Your task to perform on an android device: Open my contact list Image 0: 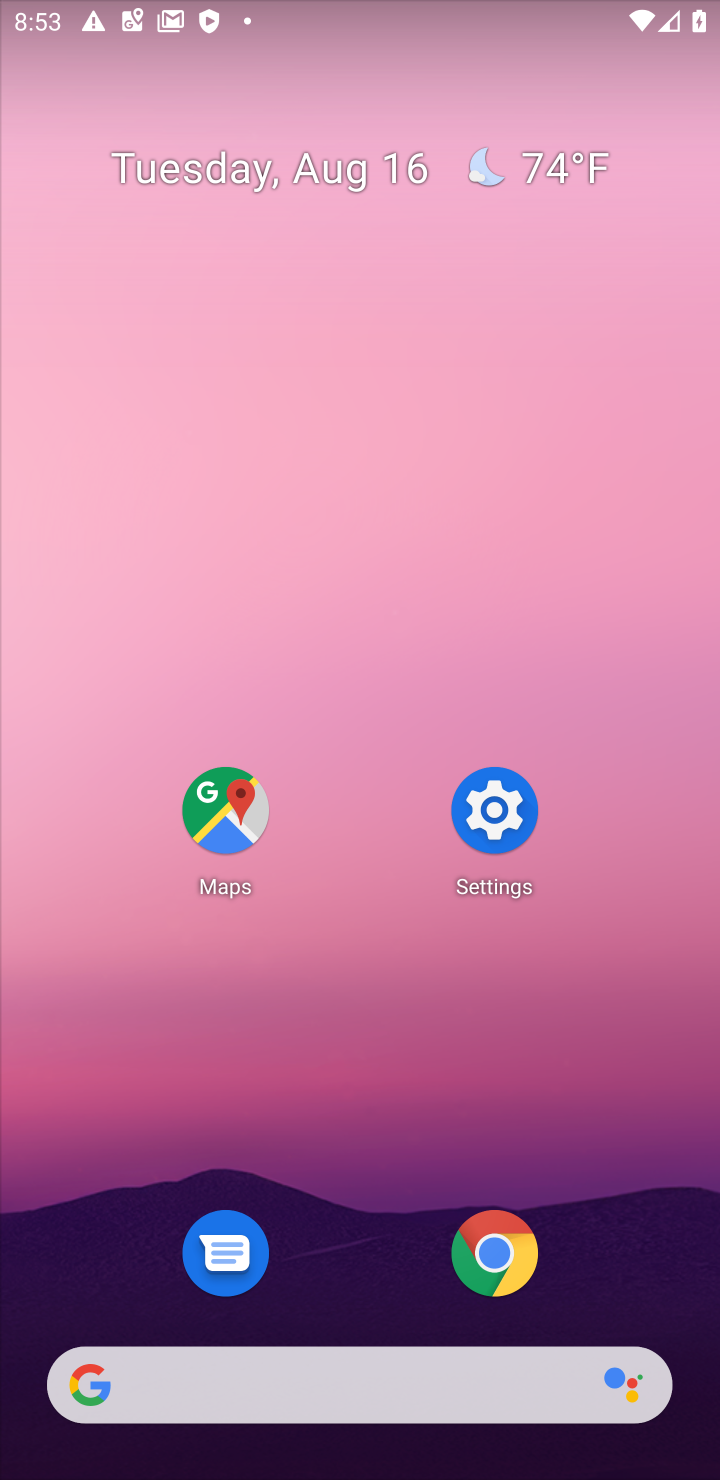
Step 0: drag from (325, 1382) to (488, 115)
Your task to perform on an android device: Open my contact list Image 1: 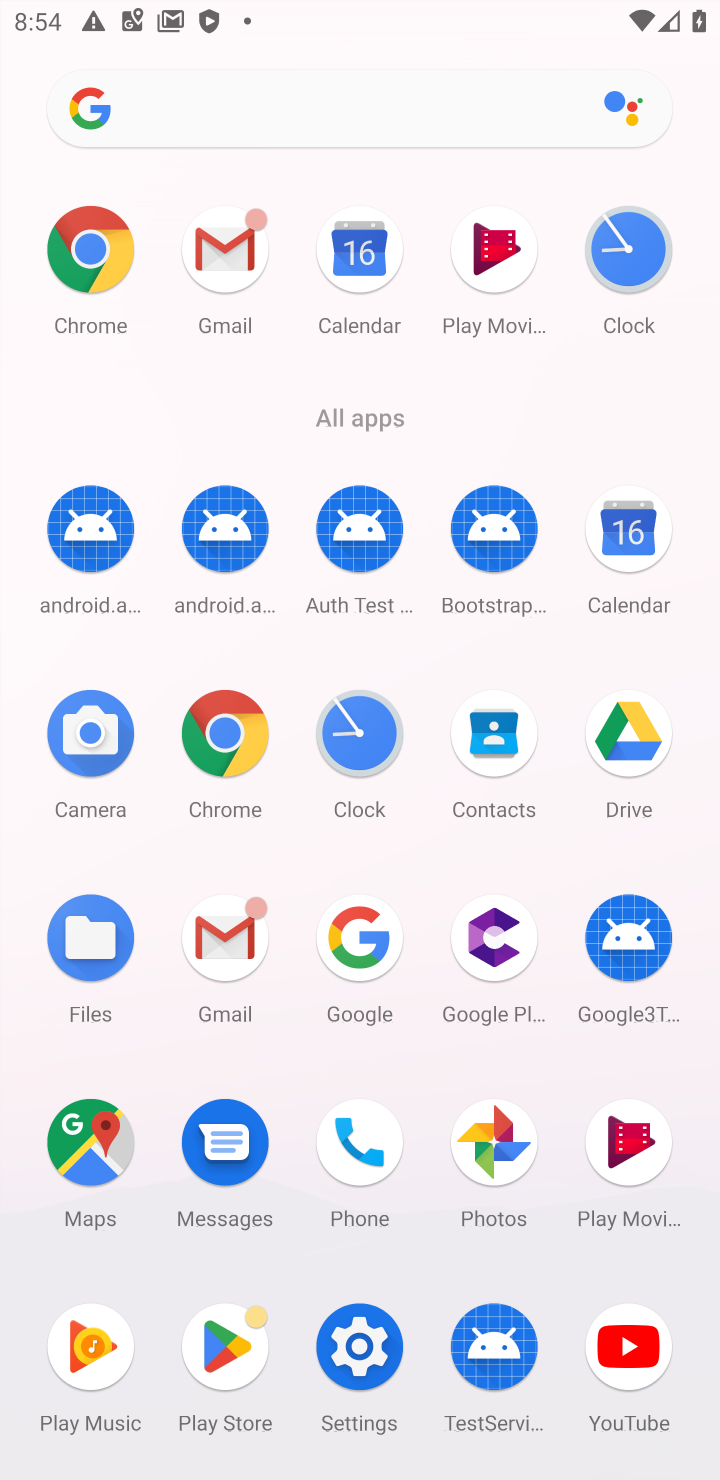
Step 1: click (496, 737)
Your task to perform on an android device: Open my contact list Image 2: 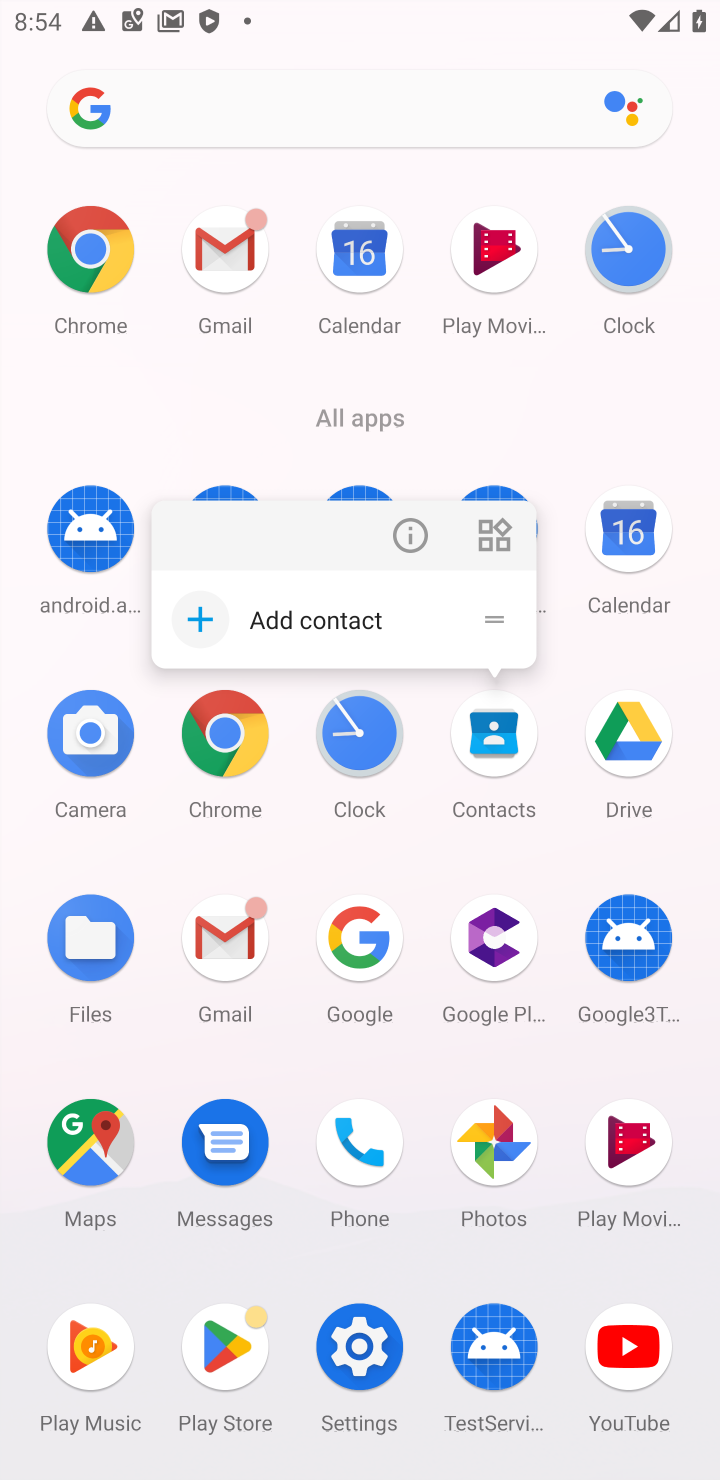
Step 2: click (496, 737)
Your task to perform on an android device: Open my contact list Image 3: 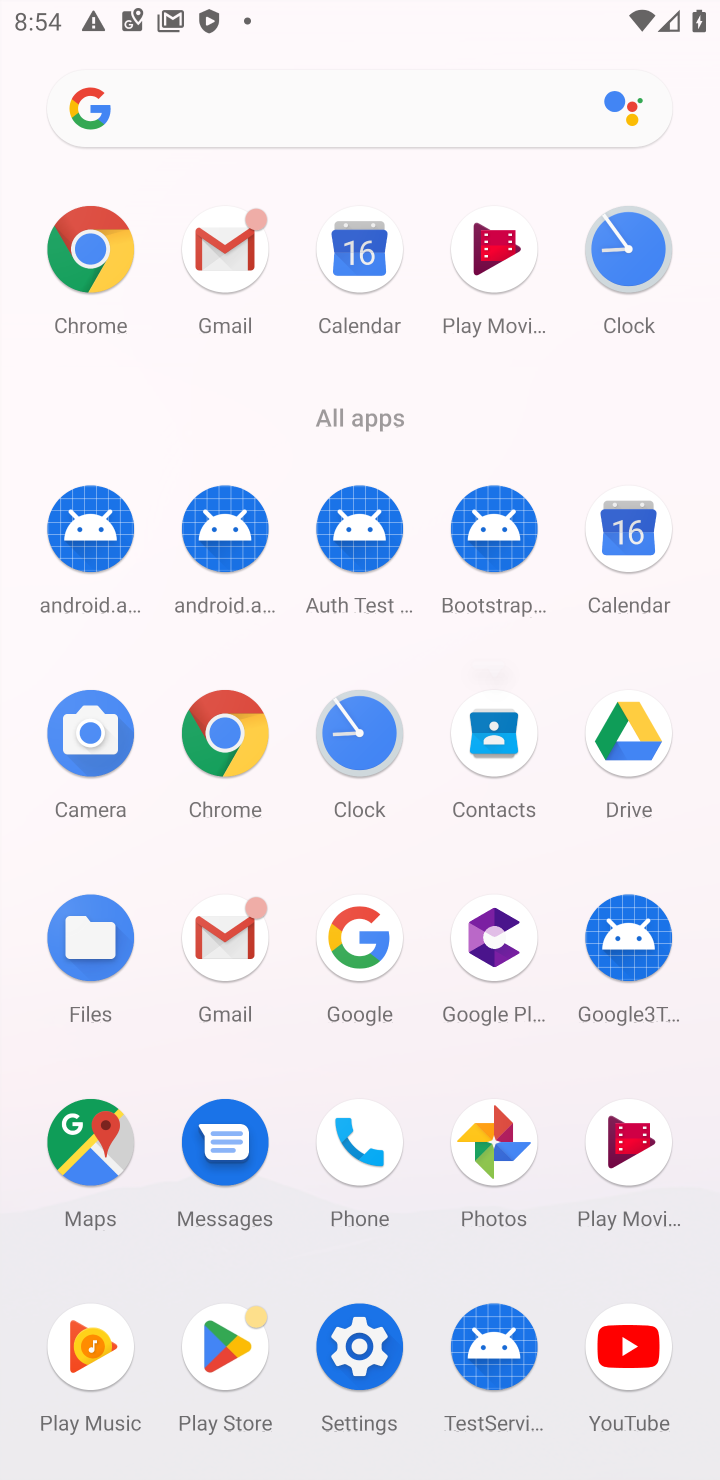
Step 3: click (496, 737)
Your task to perform on an android device: Open my contact list Image 4: 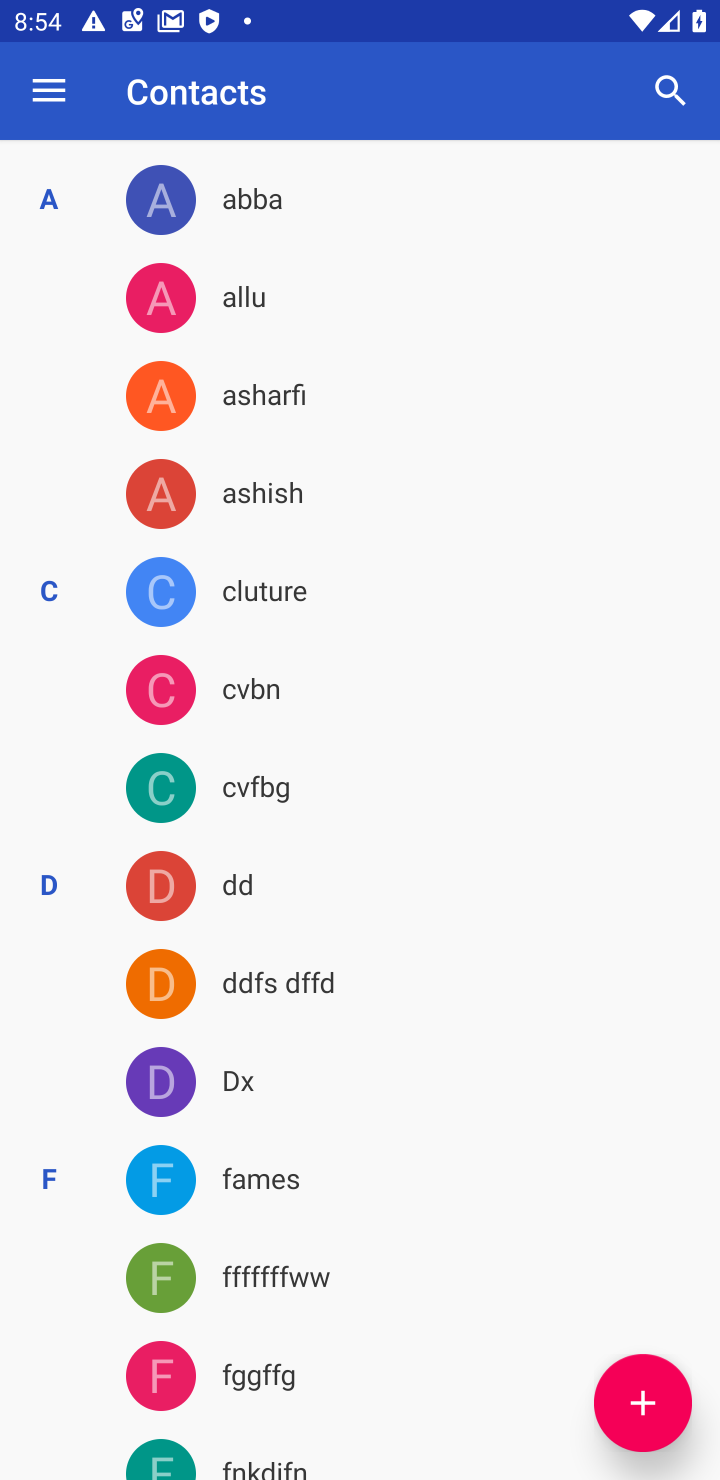
Step 4: task complete